Your task to perform on an android device: View the shopping cart on amazon.com. Add "asus rog" to the cart on amazon.com, then select checkout. Image 0: 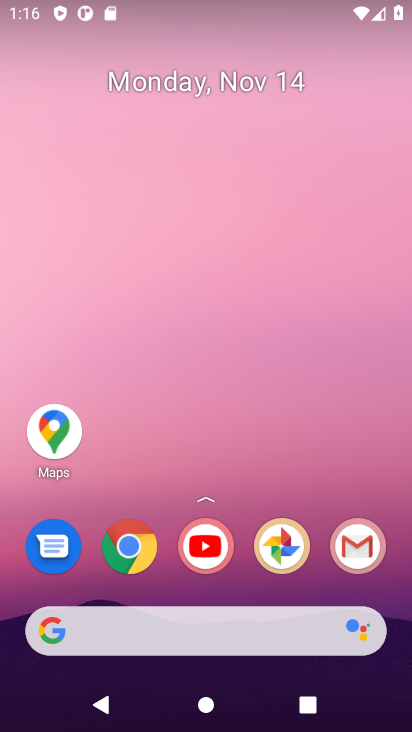
Step 0: drag from (181, 366) to (202, 30)
Your task to perform on an android device: View the shopping cart on amazon.com. Add "asus rog" to the cart on amazon.com, then select checkout. Image 1: 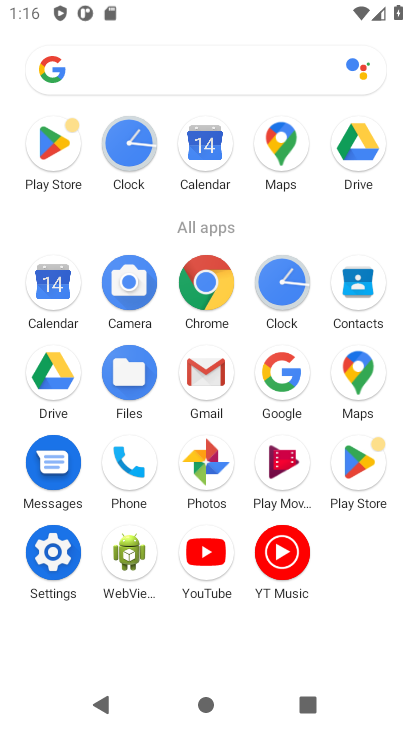
Step 1: click (218, 289)
Your task to perform on an android device: View the shopping cart on amazon.com. Add "asus rog" to the cart on amazon.com, then select checkout. Image 2: 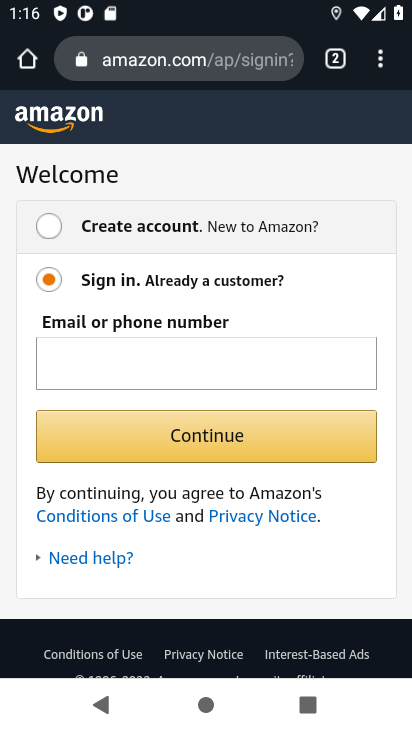
Step 2: press back button
Your task to perform on an android device: View the shopping cart on amazon.com. Add "asus rog" to the cart on amazon.com, then select checkout. Image 3: 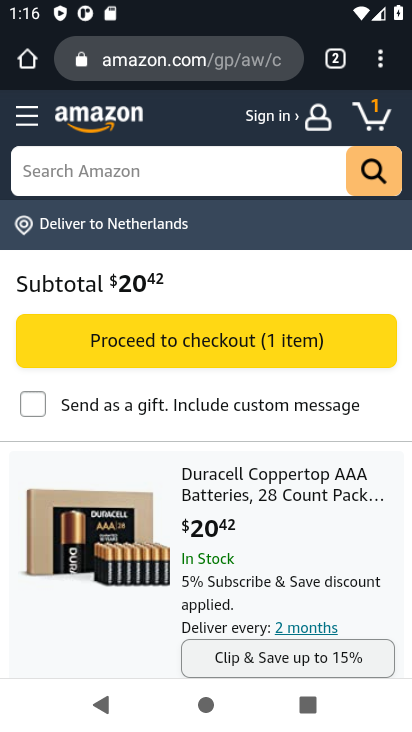
Step 3: click (163, 160)
Your task to perform on an android device: View the shopping cart on amazon.com. Add "asus rog" to the cart on amazon.com, then select checkout. Image 4: 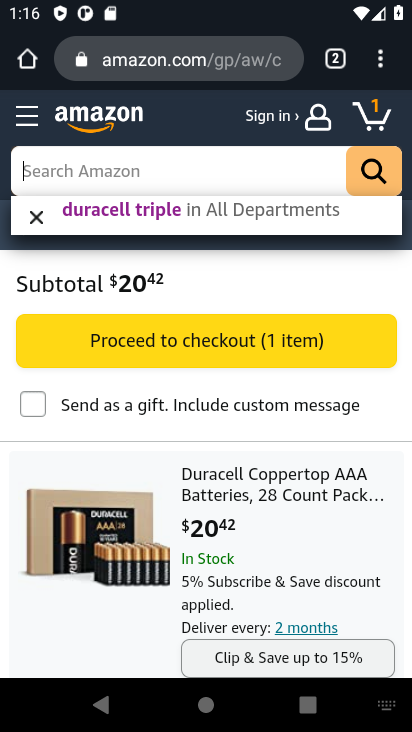
Step 4: type "asus rog"
Your task to perform on an android device: View the shopping cart on amazon.com. Add "asus rog" to the cart on amazon.com, then select checkout. Image 5: 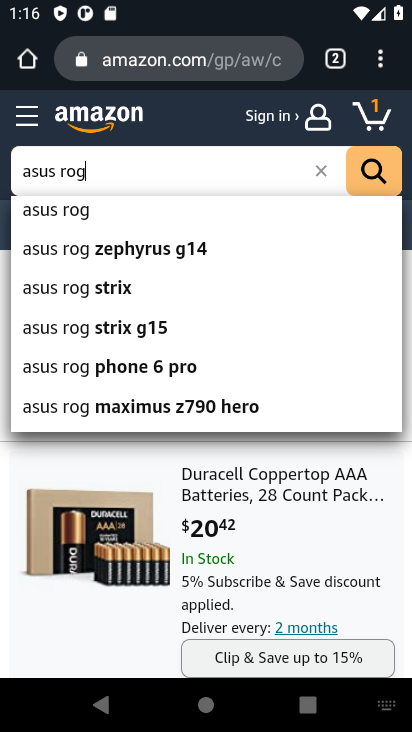
Step 5: press enter
Your task to perform on an android device: View the shopping cart on amazon.com. Add "asus rog" to the cart on amazon.com, then select checkout. Image 6: 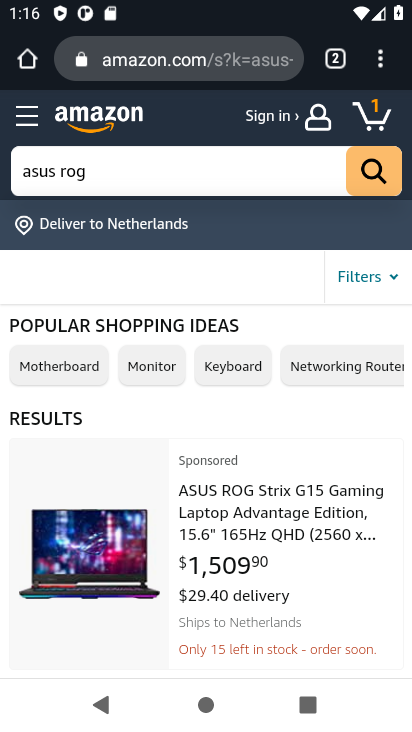
Step 6: click (246, 506)
Your task to perform on an android device: View the shopping cart on amazon.com. Add "asus rog" to the cart on amazon.com, then select checkout. Image 7: 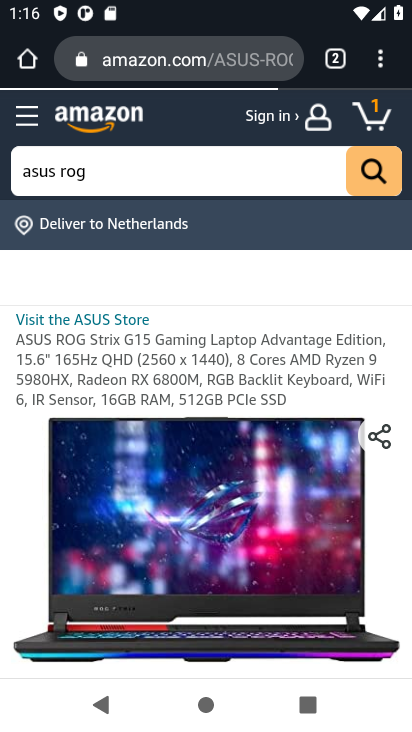
Step 7: drag from (155, 550) to (193, 170)
Your task to perform on an android device: View the shopping cart on amazon.com. Add "asus rog" to the cart on amazon.com, then select checkout. Image 8: 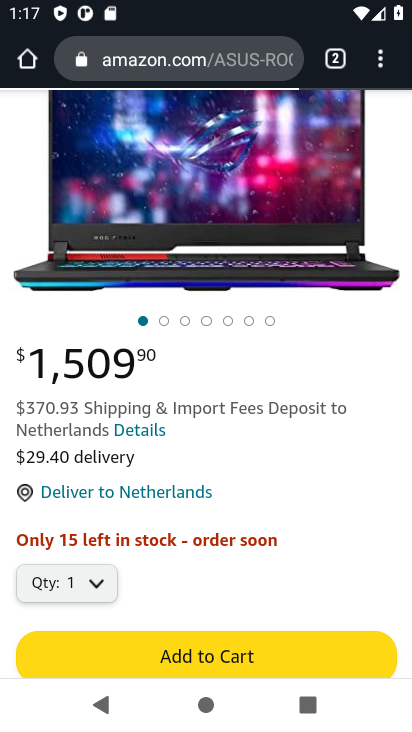
Step 8: drag from (228, 494) to (234, 160)
Your task to perform on an android device: View the shopping cart on amazon.com. Add "asus rog" to the cart on amazon.com, then select checkout. Image 9: 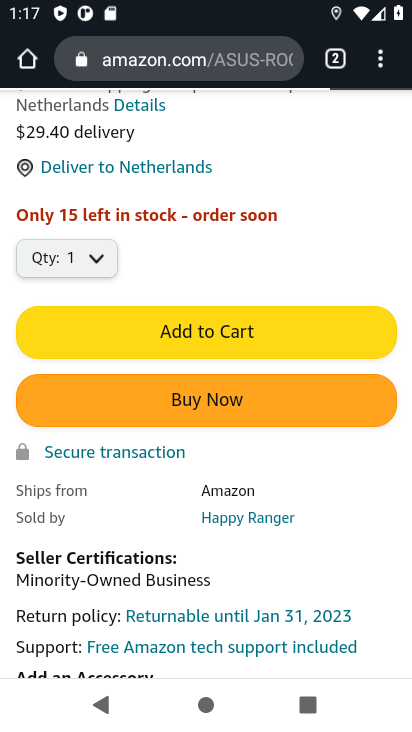
Step 9: click (163, 347)
Your task to perform on an android device: View the shopping cart on amazon.com. Add "asus rog" to the cart on amazon.com, then select checkout. Image 10: 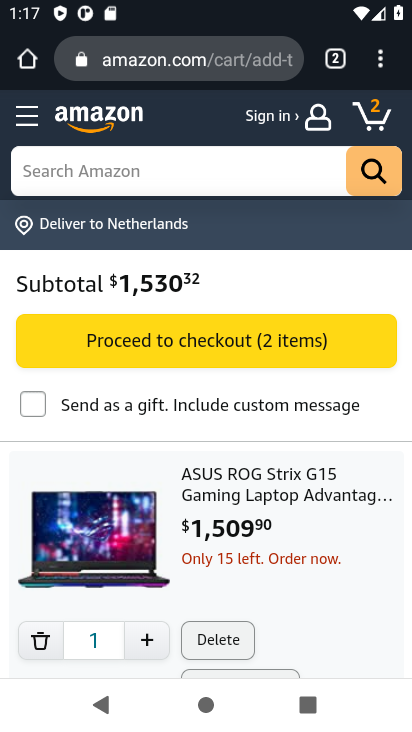
Step 10: click (207, 347)
Your task to perform on an android device: View the shopping cart on amazon.com. Add "asus rog" to the cart on amazon.com, then select checkout. Image 11: 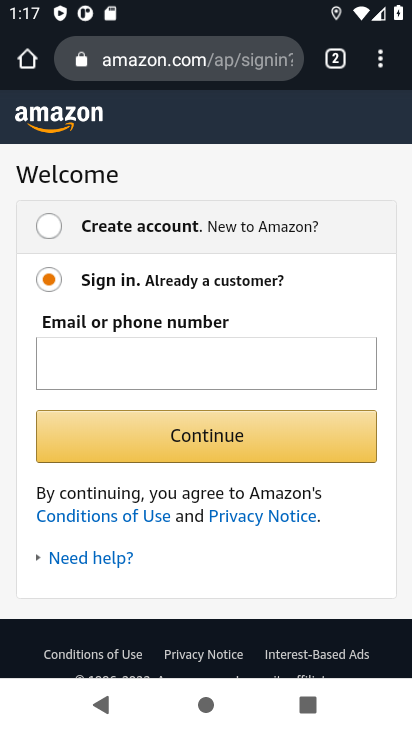
Step 11: task complete